Your task to perform on an android device: Open Chrome and go to settings Image 0: 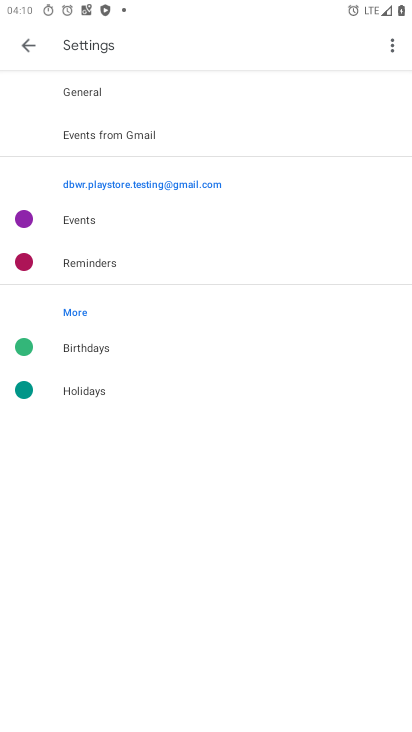
Step 0: press home button
Your task to perform on an android device: Open Chrome and go to settings Image 1: 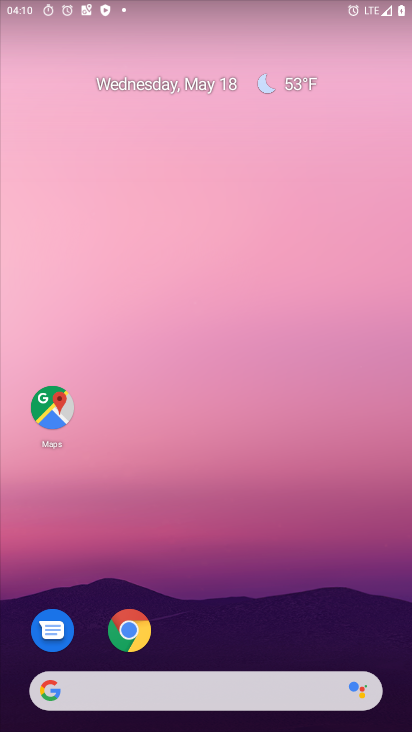
Step 1: click (123, 631)
Your task to perform on an android device: Open Chrome and go to settings Image 2: 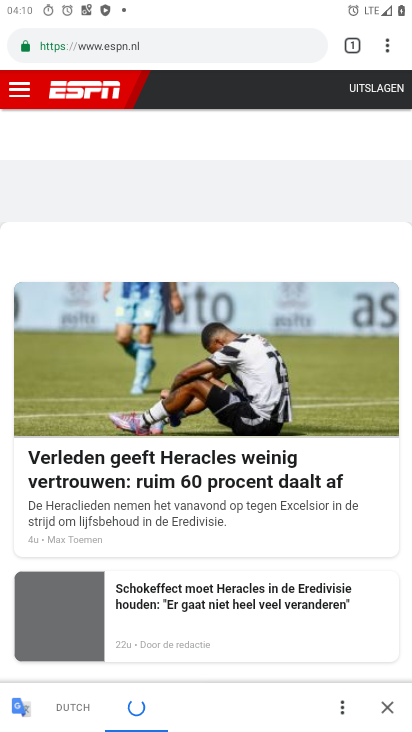
Step 2: click (387, 50)
Your task to perform on an android device: Open Chrome and go to settings Image 3: 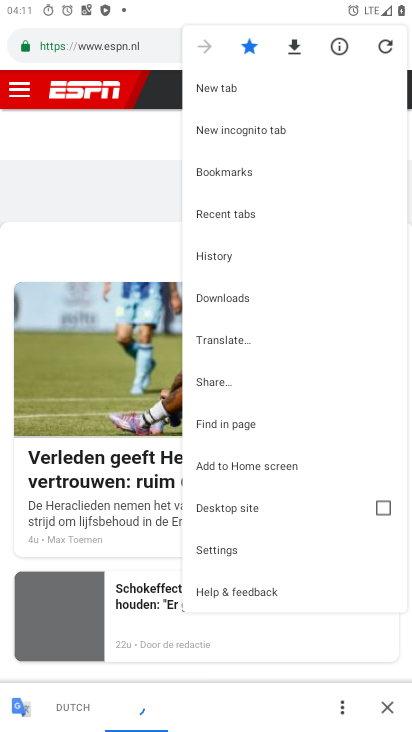
Step 3: click (215, 544)
Your task to perform on an android device: Open Chrome and go to settings Image 4: 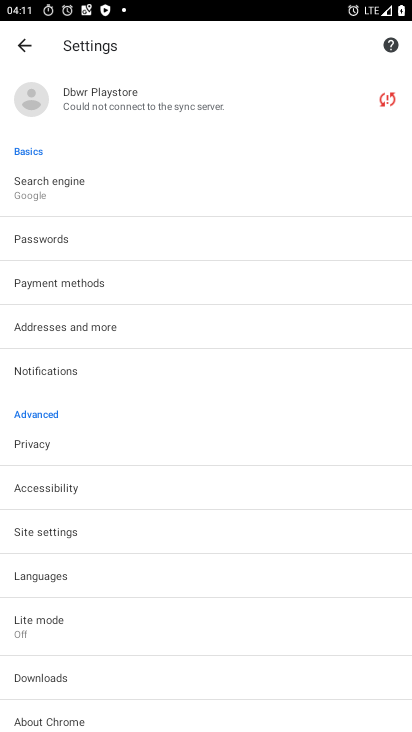
Step 4: task complete